Your task to perform on an android device: stop showing notifications on the lock screen Image 0: 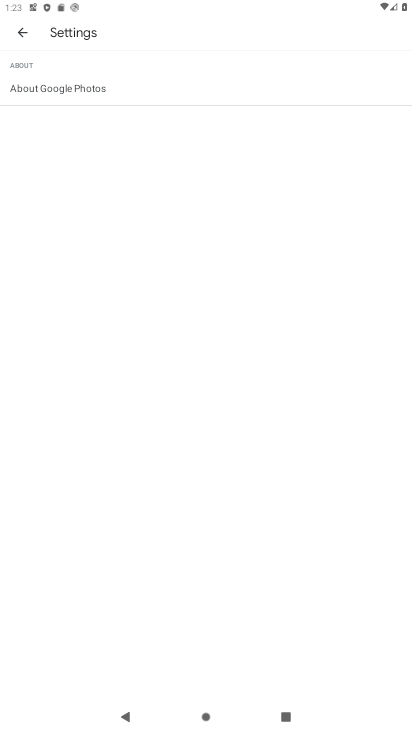
Step 0: press home button
Your task to perform on an android device: stop showing notifications on the lock screen Image 1: 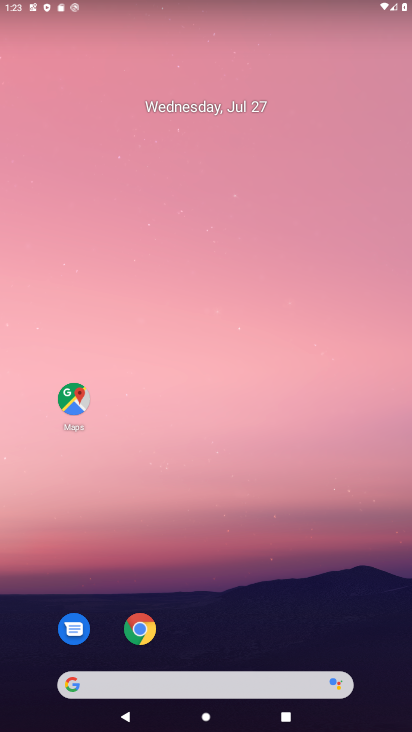
Step 1: drag from (245, 615) to (248, 163)
Your task to perform on an android device: stop showing notifications on the lock screen Image 2: 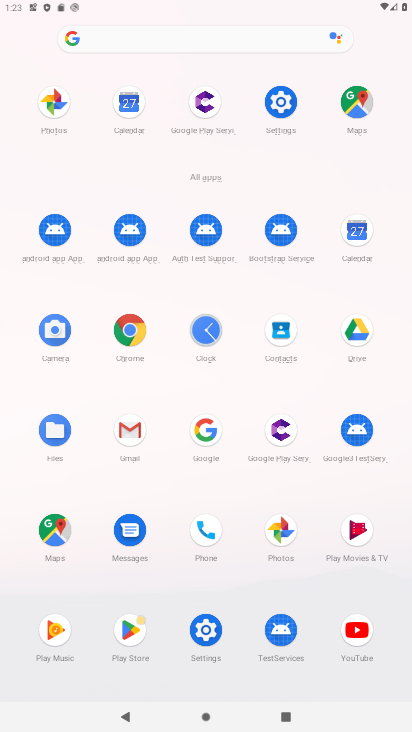
Step 2: click (281, 105)
Your task to perform on an android device: stop showing notifications on the lock screen Image 3: 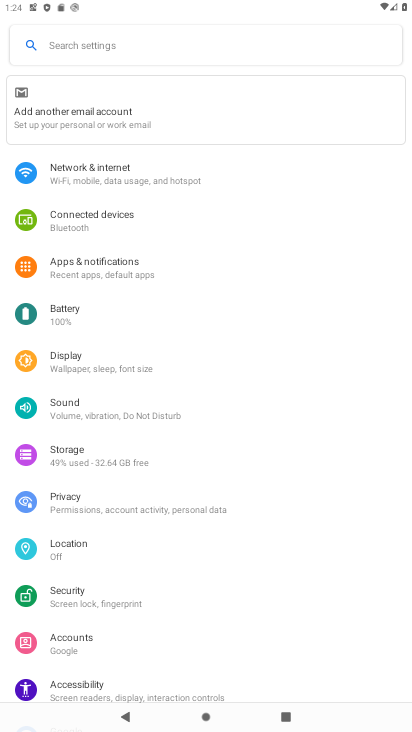
Step 3: click (128, 269)
Your task to perform on an android device: stop showing notifications on the lock screen Image 4: 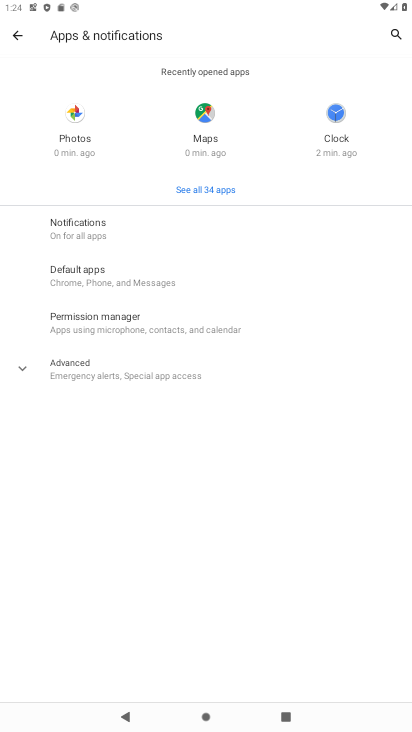
Step 4: click (135, 236)
Your task to perform on an android device: stop showing notifications on the lock screen Image 5: 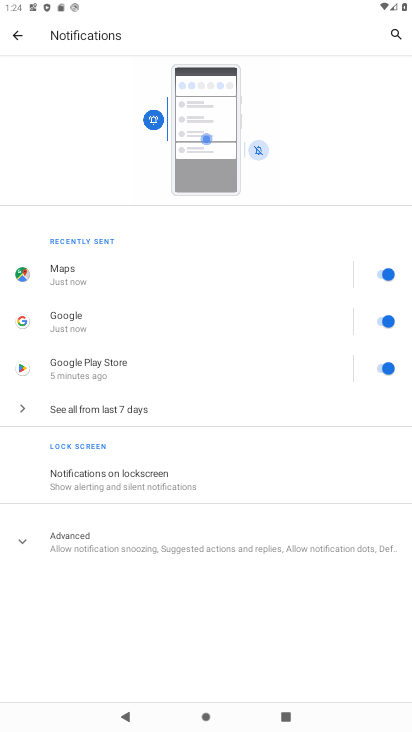
Step 5: click (189, 494)
Your task to perform on an android device: stop showing notifications on the lock screen Image 6: 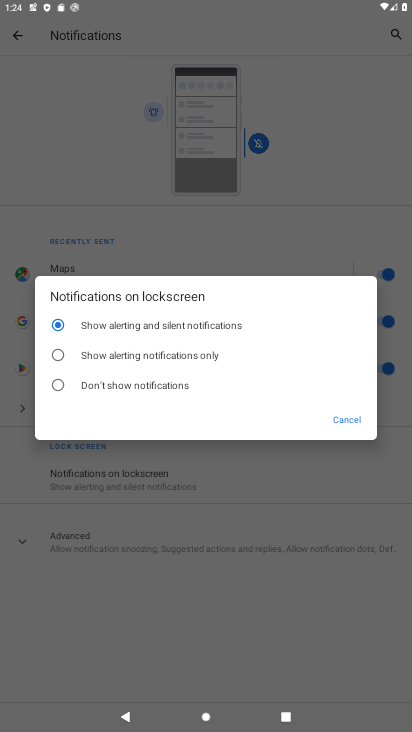
Step 6: click (187, 382)
Your task to perform on an android device: stop showing notifications on the lock screen Image 7: 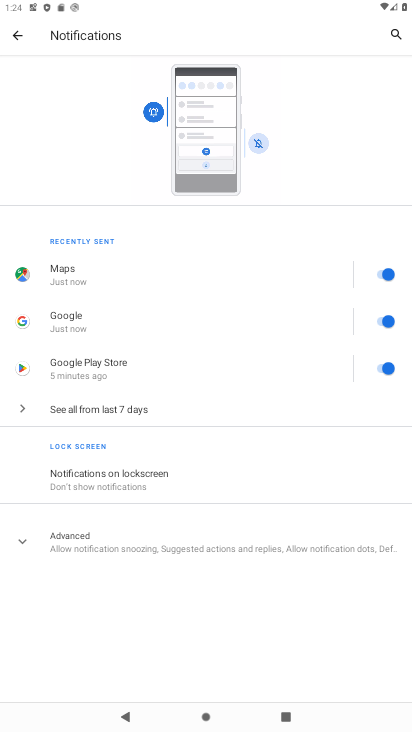
Step 7: task complete